Your task to perform on an android device: Find coffee shops on Maps Image 0: 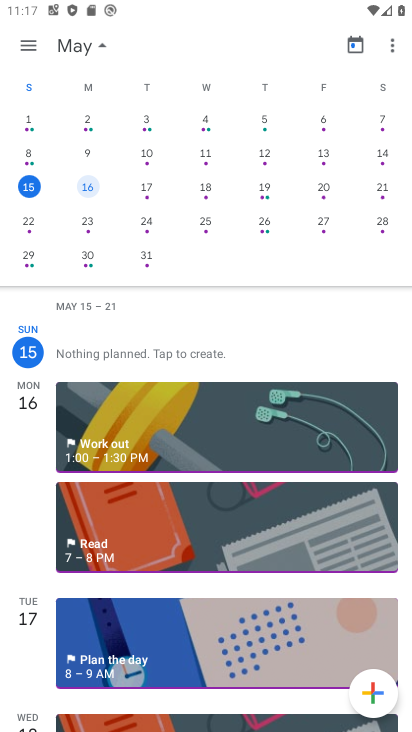
Step 0: press home button
Your task to perform on an android device: Find coffee shops on Maps Image 1: 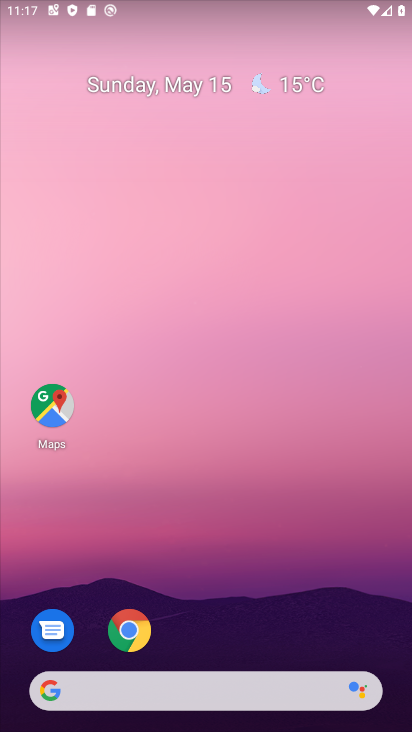
Step 1: drag from (225, 725) to (230, 206)
Your task to perform on an android device: Find coffee shops on Maps Image 2: 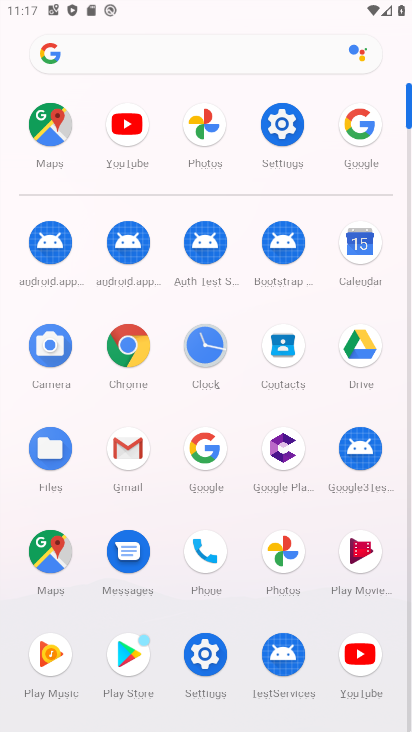
Step 2: click (47, 547)
Your task to perform on an android device: Find coffee shops on Maps Image 3: 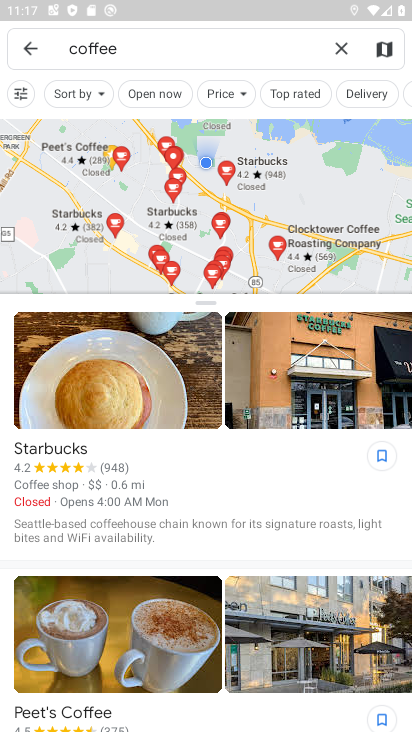
Step 3: click (162, 51)
Your task to perform on an android device: Find coffee shops on Maps Image 4: 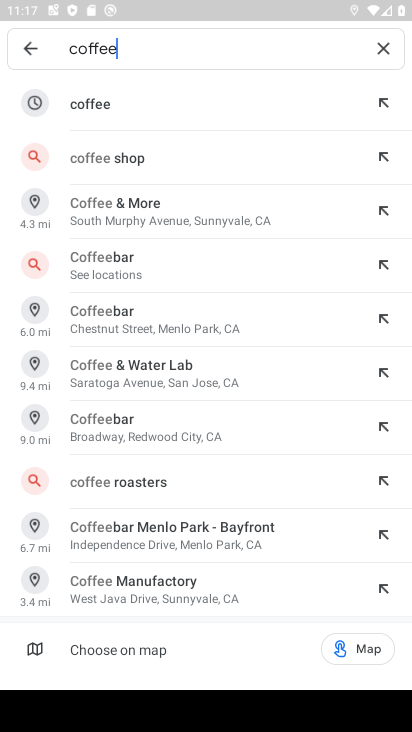
Step 4: type " shops"
Your task to perform on an android device: Find coffee shops on Maps Image 5: 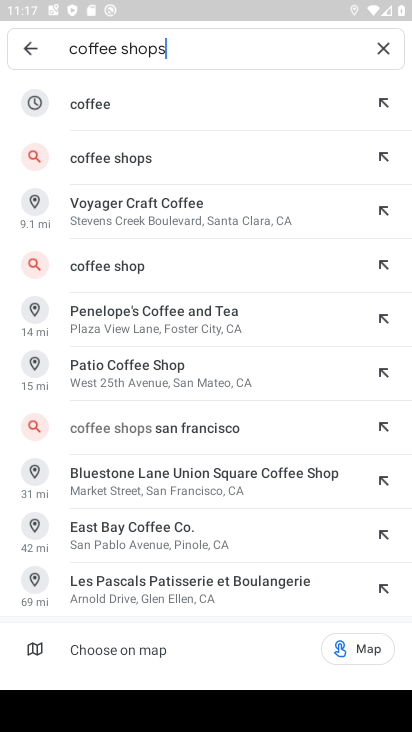
Step 5: click (200, 143)
Your task to perform on an android device: Find coffee shops on Maps Image 6: 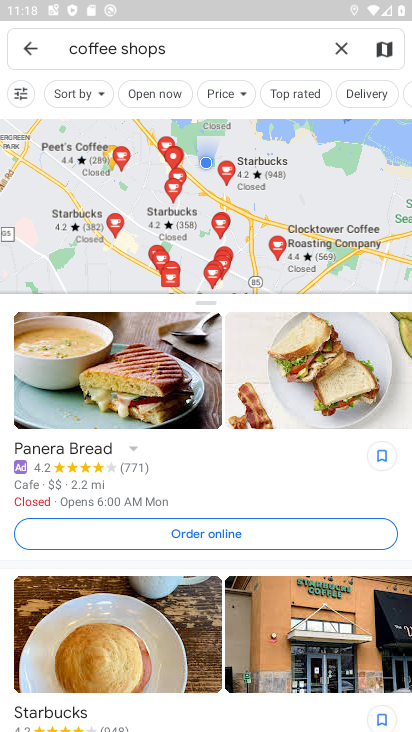
Step 6: task complete